Your task to perform on an android device: all mails in gmail Image 0: 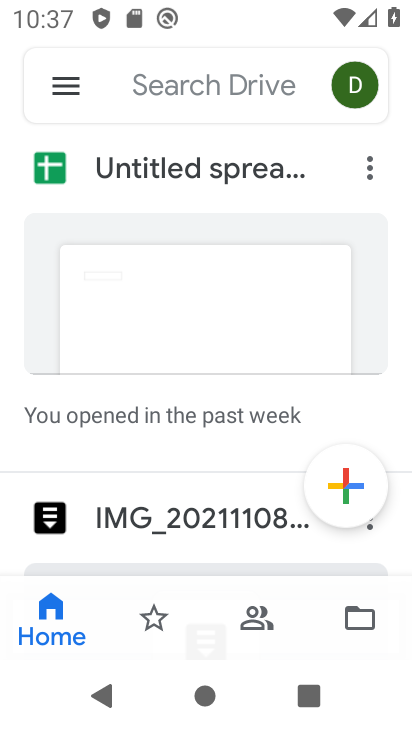
Step 0: press home button
Your task to perform on an android device: all mails in gmail Image 1: 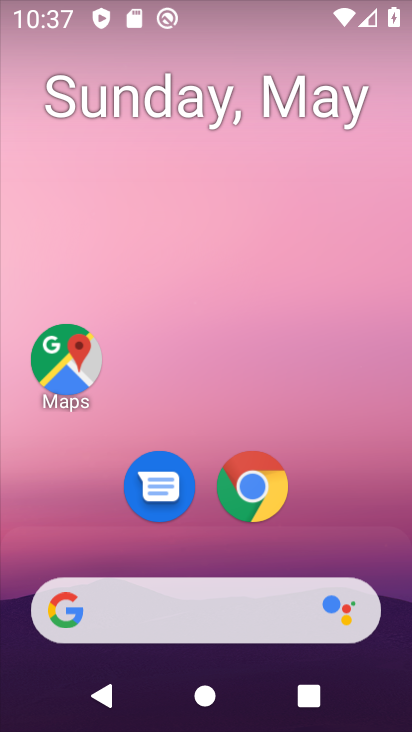
Step 1: drag from (319, 541) to (229, 195)
Your task to perform on an android device: all mails in gmail Image 2: 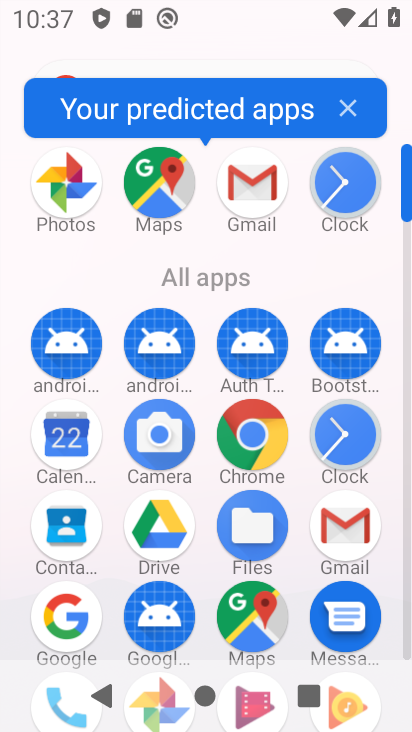
Step 2: click (235, 179)
Your task to perform on an android device: all mails in gmail Image 3: 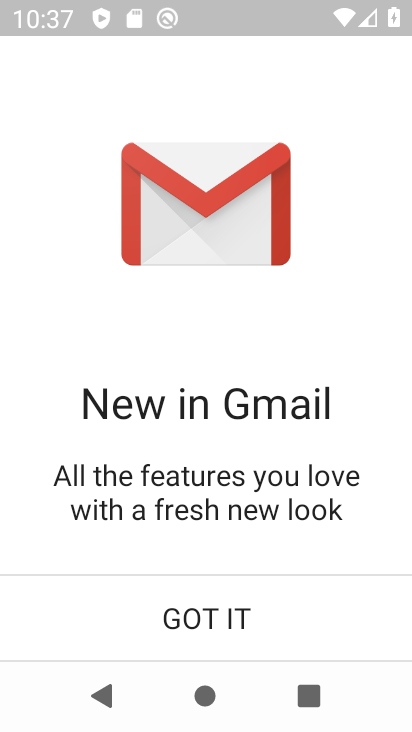
Step 3: click (203, 619)
Your task to perform on an android device: all mails in gmail Image 4: 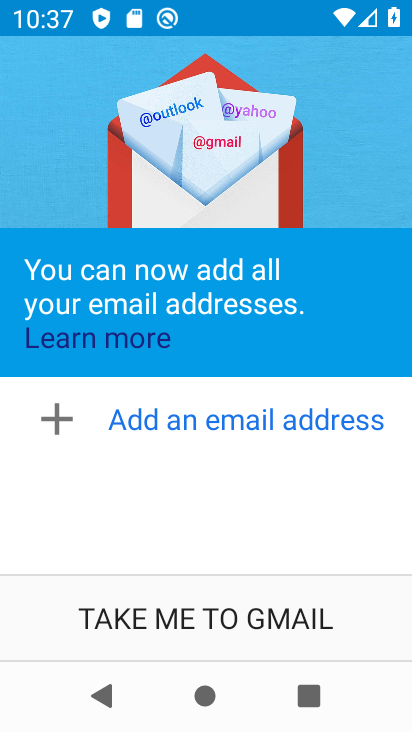
Step 4: click (203, 619)
Your task to perform on an android device: all mails in gmail Image 5: 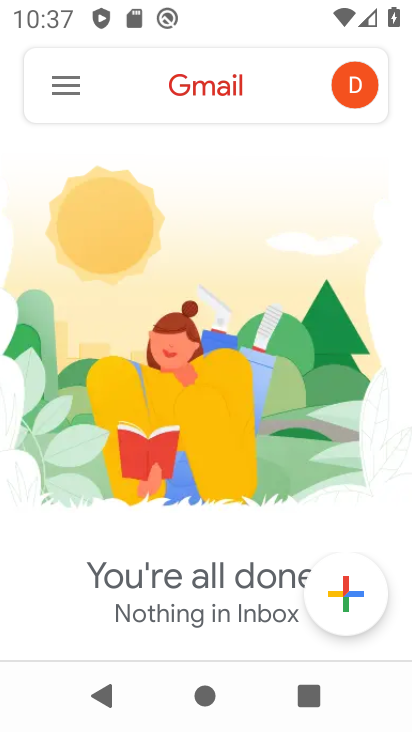
Step 5: click (78, 93)
Your task to perform on an android device: all mails in gmail Image 6: 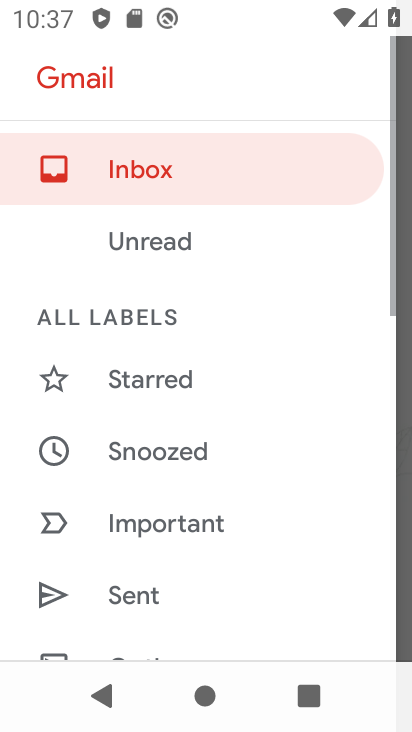
Step 6: drag from (190, 611) to (218, 314)
Your task to perform on an android device: all mails in gmail Image 7: 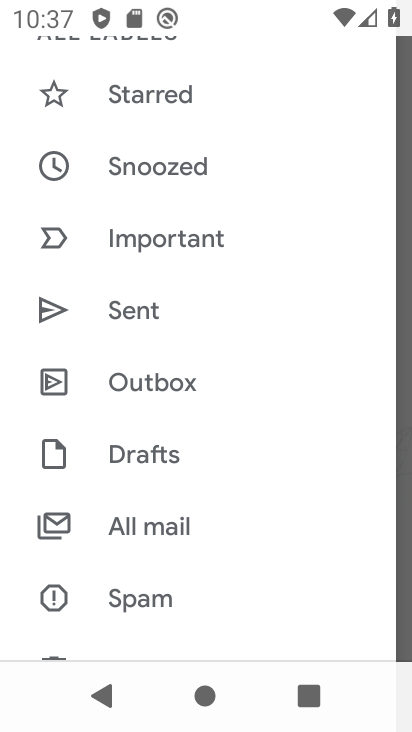
Step 7: click (176, 533)
Your task to perform on an android device: all mails in gmail Image 8: 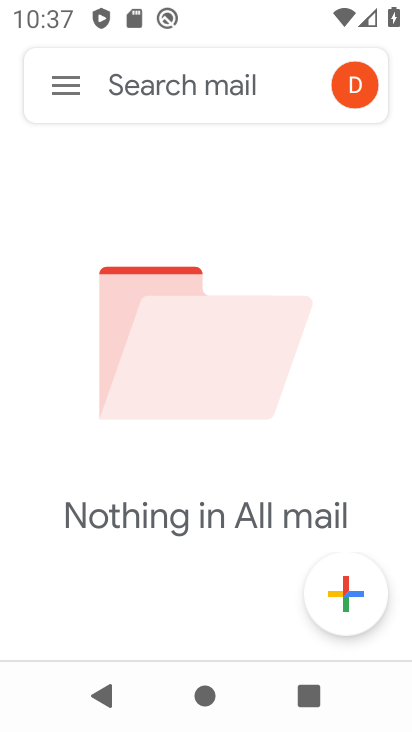
Step 8: task complete